Your task to perform on an android device: Go to wifi settings Image 0: 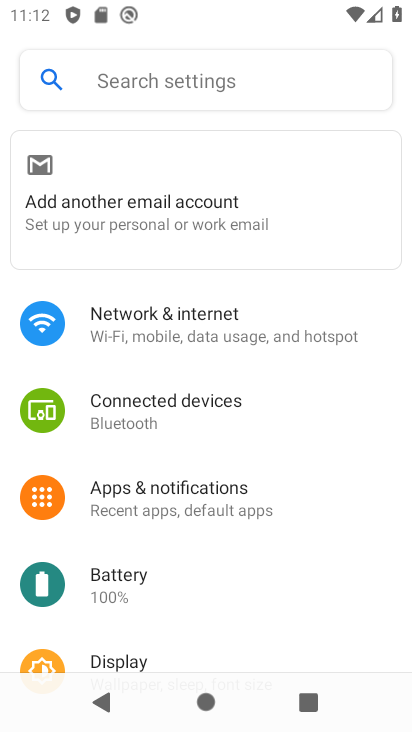
Step 0: click (147, 314)
Your task to perform on an android device: Go to wifi settings Image 1: 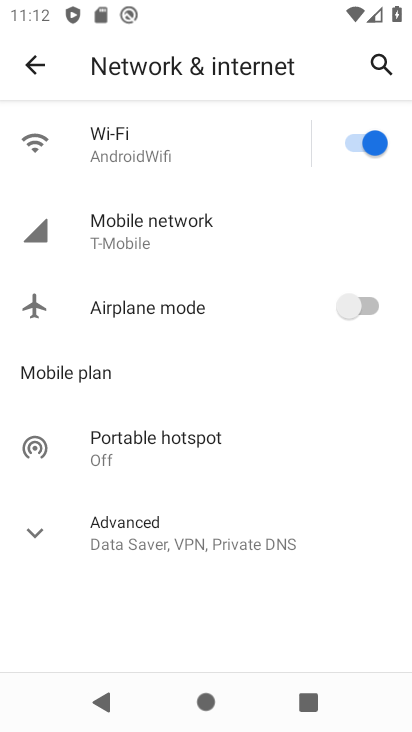
Step 1: click (106, 152)
Your task to perform on an android device: Go to wifi settings Image 2: 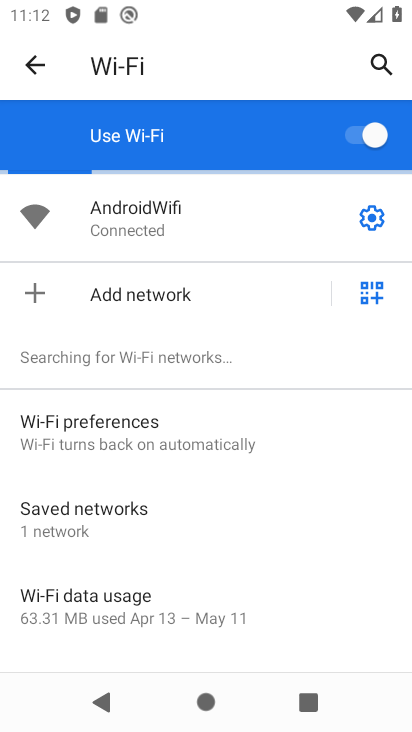
Step 2: task complete